Your task to perform on an android device: Open Youtube and go to the subscriptions tab Image 0: 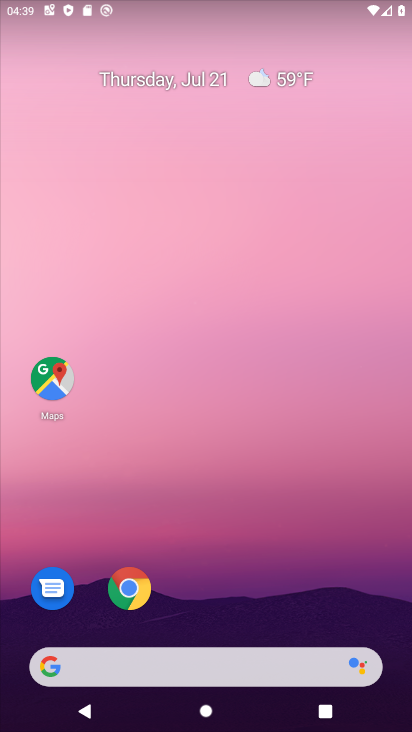
Step 0: drag from (210, 613) to (235, 152)
Your task to perform on an android device: Open Youtube and go to the subscriptions tab Image 1: 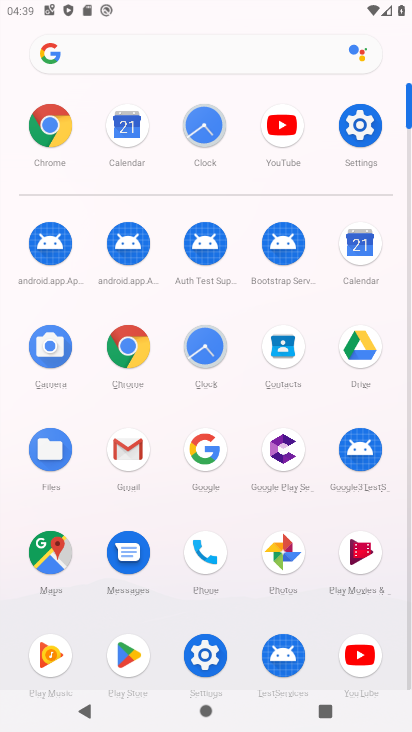
Step 1: click (376, 660)
Your task to perform on an android device: Open Youtube and go to the subscriptions tab Image 2: 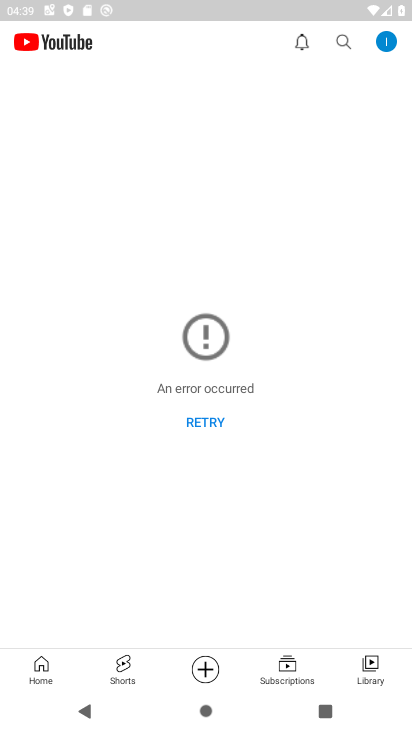
Step 2: click (201, 420)
Your task to perform on an android device: Open Youtube and go to the subscriptions tab Image 3: 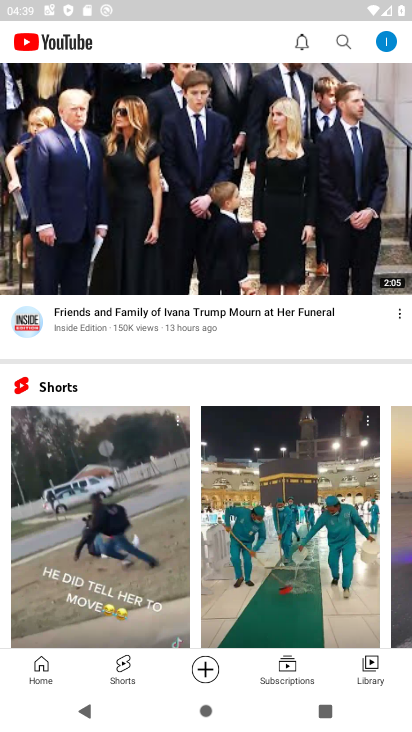
Step 3: click (289, 663)
Your task to perform on an android device: Open Youtube and go to the subscriptions tab Image 4: 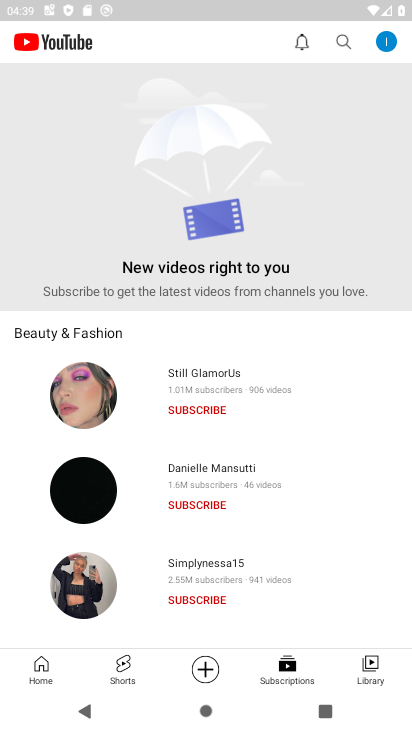
Step 4: task complete